Your task to perform on an android device: add a label to a message in the gmail app Image 0: 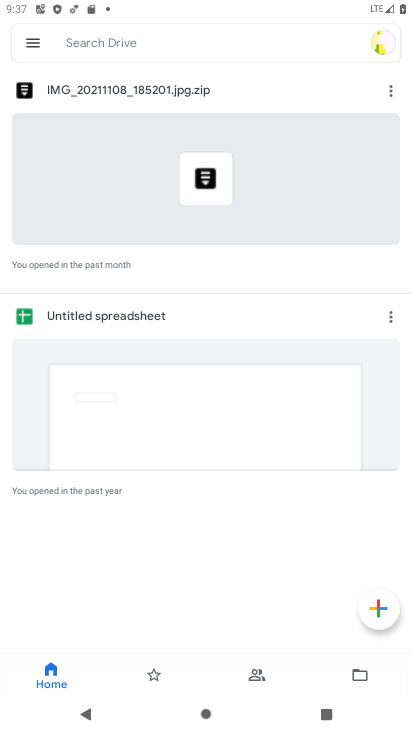
Step 0: press home button
Your task to perform on an android device: add a label to a message in the gmail app Image 1: 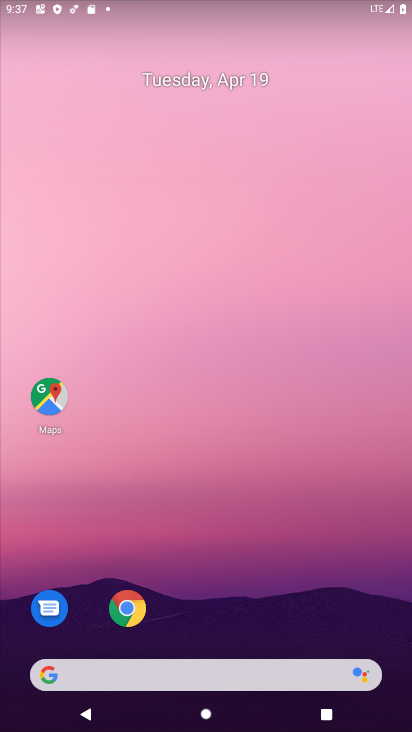
Step 1: drag from (366, 623) to (304, 157)
Your task to perform on an android device: add a label to a message in the gmail app Image 2: 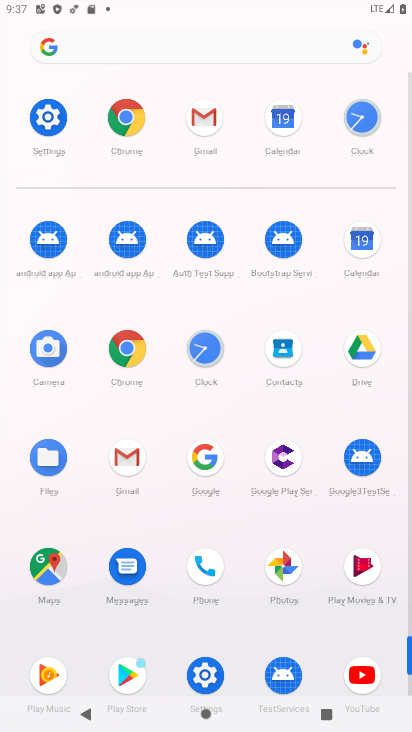
Step 2: click (124, 454)
Your task to perform on an android device: add a label to a message in the gmail app Image 3: 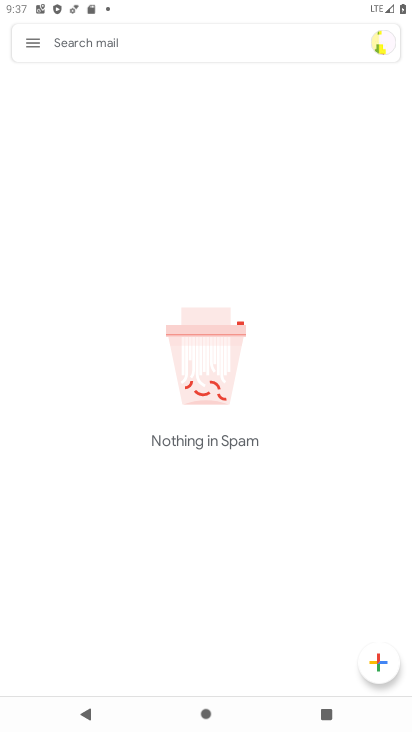
Step 3: click (34, 44)
Your task to perform on an android device: add a label to a message in the gmail app Image 4: 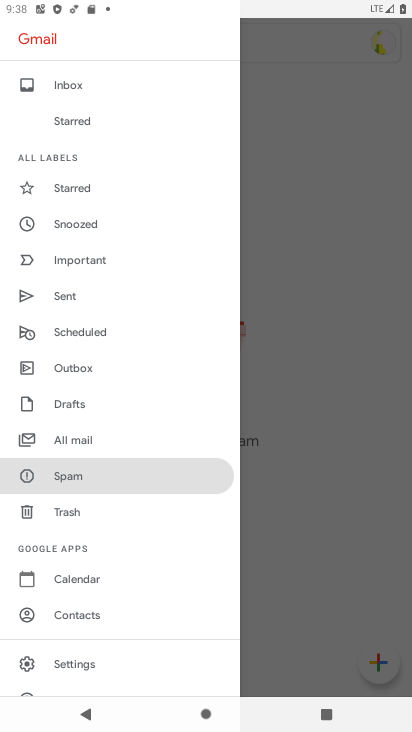
Step 4: click (74, 439)
Your task to perform on an android device: add a label to a message in the gmail app Image 5: 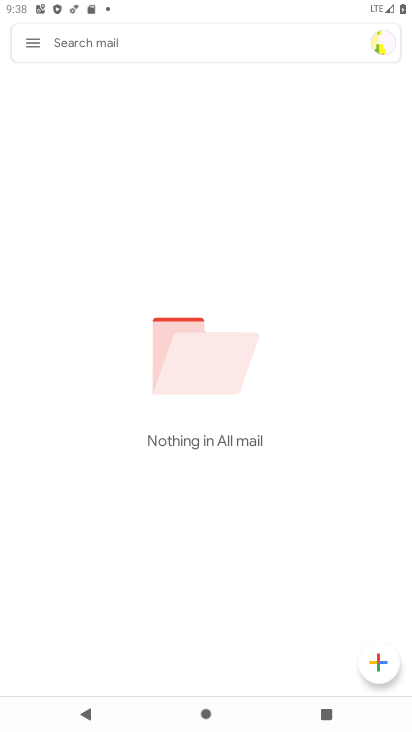
Step 5: task complete